Your task to perform on an android device: turn smart compose on in the gmail app Image 0: 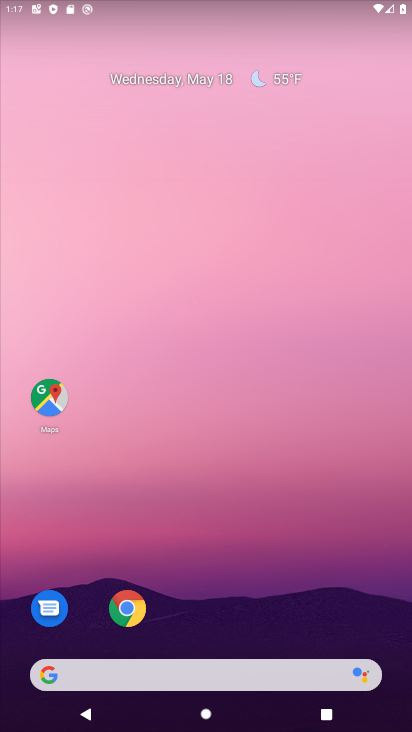
Step 0: drag from (285, 590) to (295, 77)
Your task to perform on an android device: turn smart compose on in the gmail app Image 1: 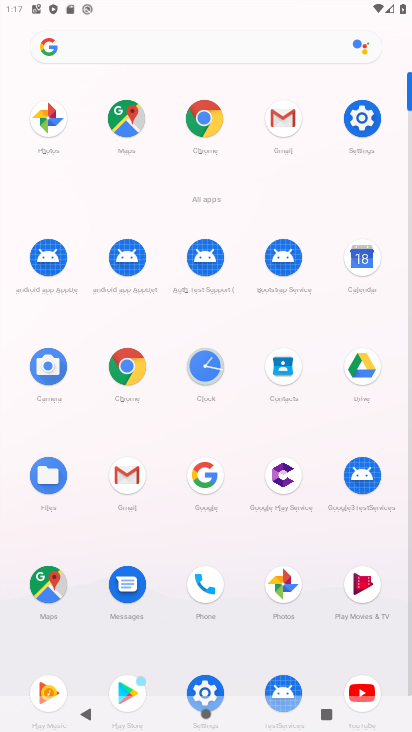
Step 1: click (283, 110)
Your task to perform on an android device: turn smart compose on in the gmail app Image 2: 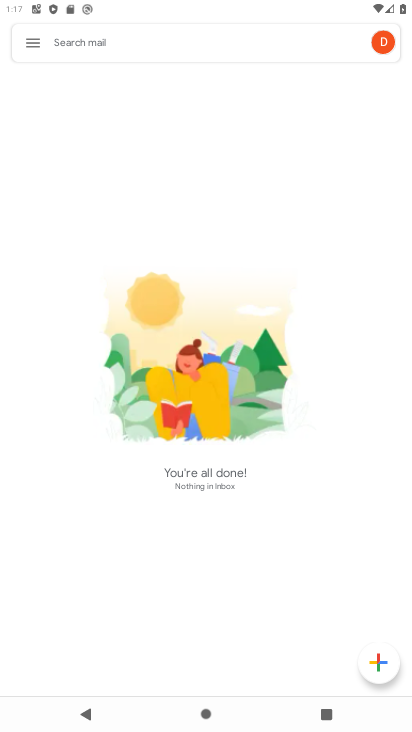
Step 2: click (33, 42)
Your task to perform on an android device: turn smart compose on in the gmail app Image 3: 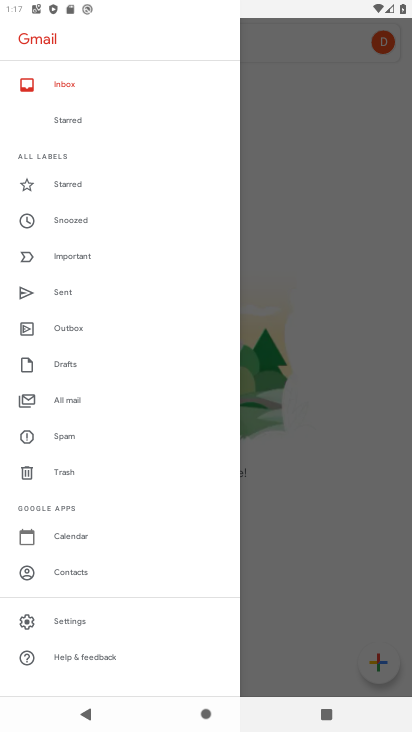
Step 3: drag from (139, 639) to (200, 215)
Your task to perform on an android device: turn smart compose on in the gmail app Image 4: 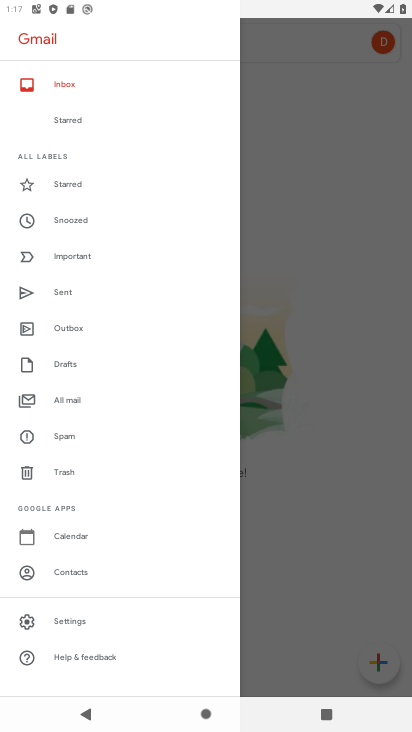
Step 4: click (72, 611)
Your task to perform on an android device: turn smart compose on in the gmail app Image 5: 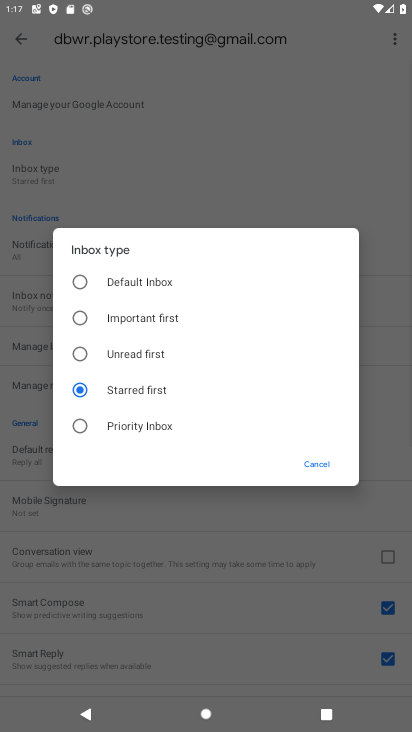
Step 5: click (317, 454)
Your task to perform on an android device: turn smart compose on in the gmail app Image 6: 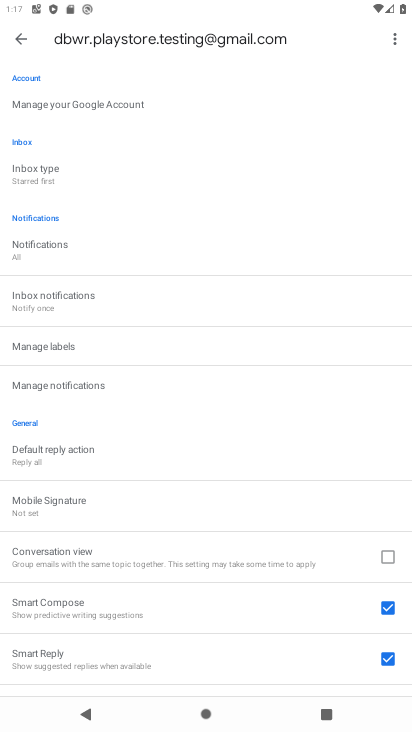
Step 6: task complete